Your task to perform on an android device: clear history in the chrome app Image 0: 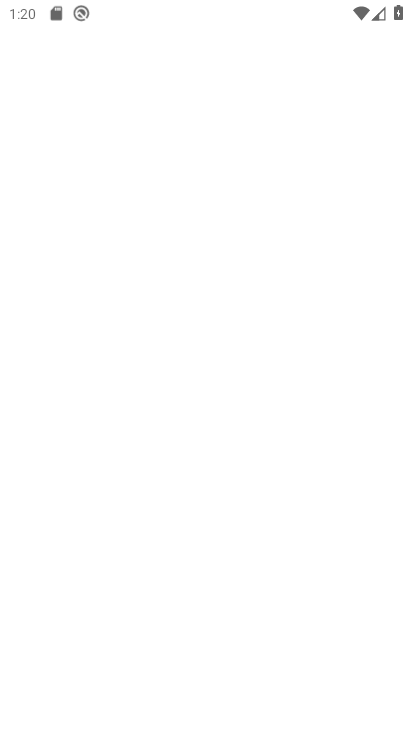
Step 0: drag from (216, 646) to (206, 284)
Your task to perform on an android device: clear history in the chrome app Image 1: 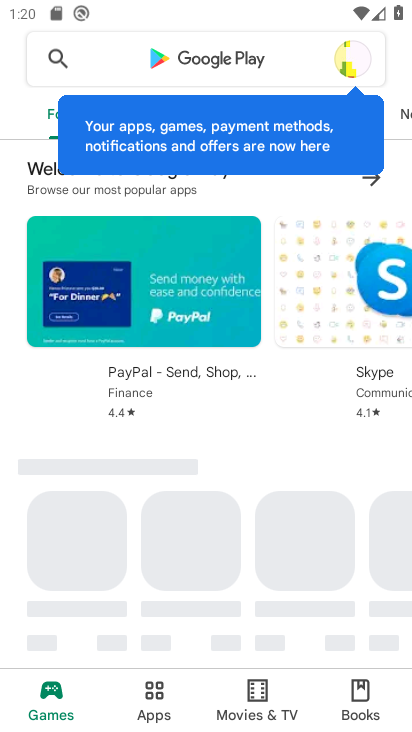
Step 1: press home button
Your task to perform on an android device: clear history in the chrome app Image 2: 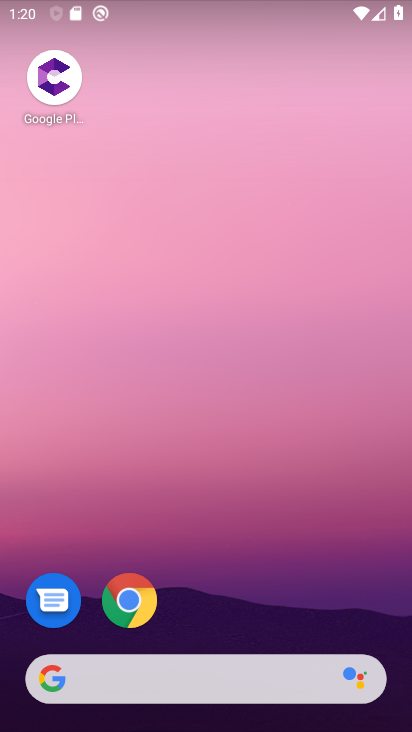
Step 2: click (120, 602)
Your task to perform on an android device: clear history in the chrome app Image 3: 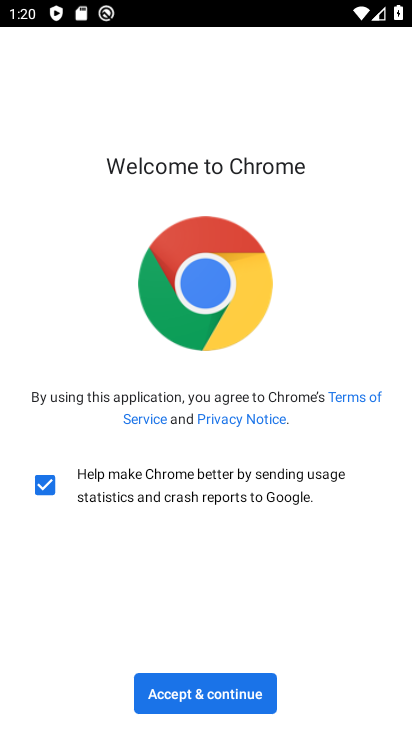
Step 3: click (195, 704)
Your task to perform on an android device: clear history in the chrome app Image 4: 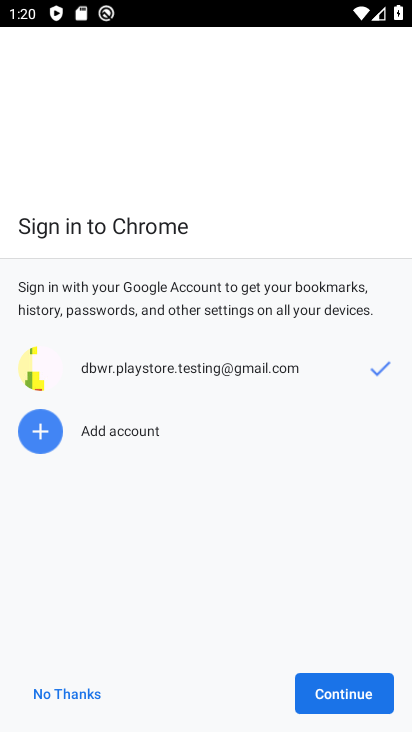
Step 4: click (338, 689)
Your task to perform on an android device: clear history in the chrome app Image 5: 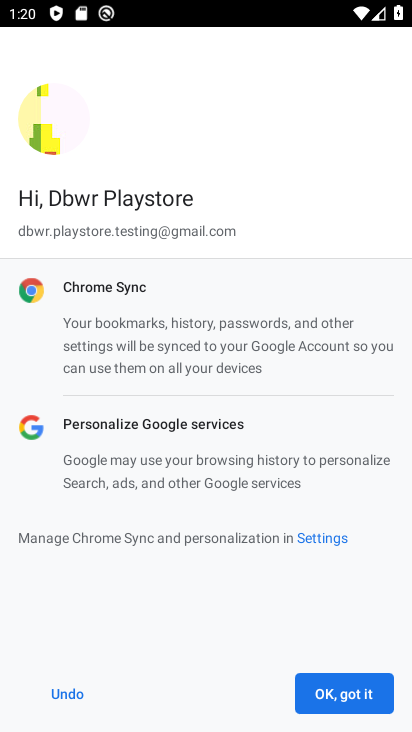
Step 5: click (338, 689)
Your task to perform on an android device: clear history in the chrome app Image 6: 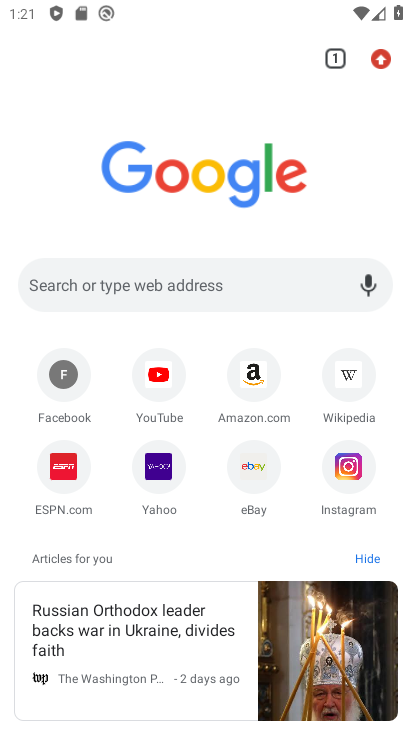
Step 6: task complete